Your task to perform on an android device: open a new tab in the chrome app Image 0: 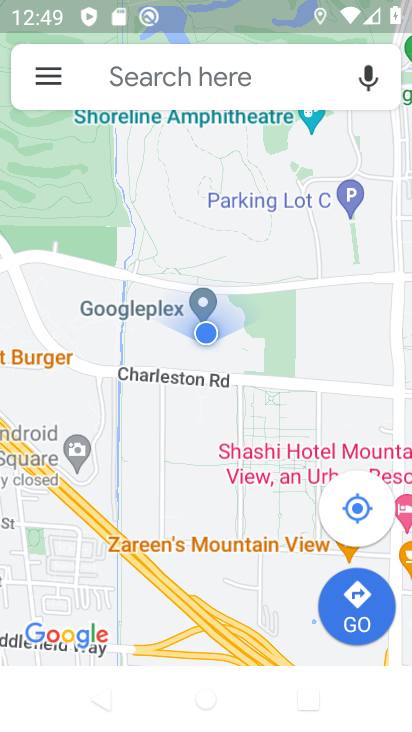
Step 0: press home button
Your task to perform on an android device: open a new tab in the chrome app Image 1: 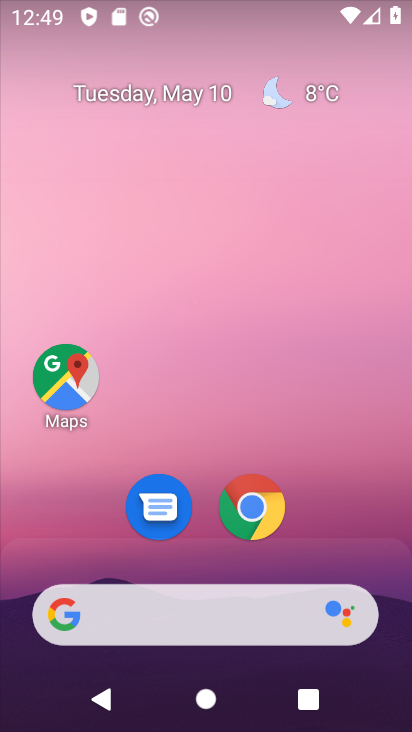
Step 1: click (254, 505)
Your task to perform on an android device: open a new tab in the chrome app Image 2: 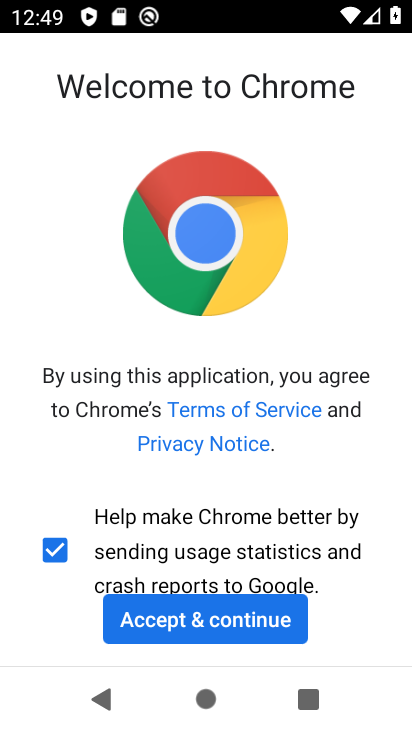
Step 2: click (180, 628)
Your task to perform on an android device: open a new tab in the chrome app Image 3: 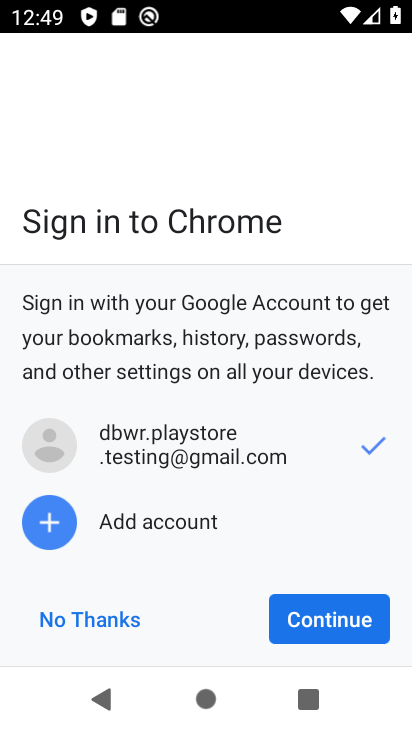
Step 3: click (324, 614)
Your task to perform on an android device: open a new tab in the chrome app Image 4: 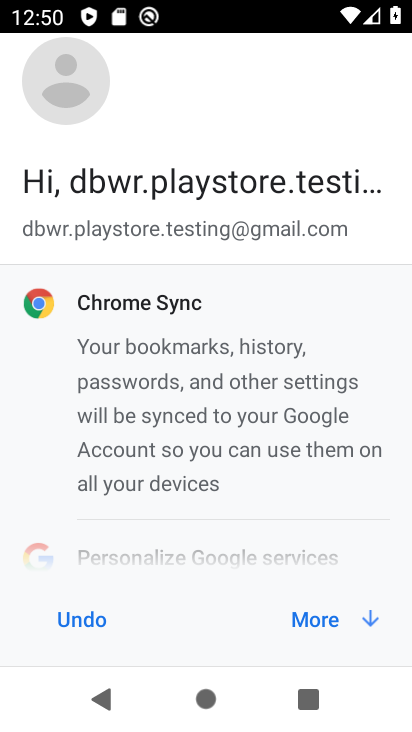
Step 4: click (324, 614)
Your task to perform on an android device: open a new tab in the chrome app Image 5: 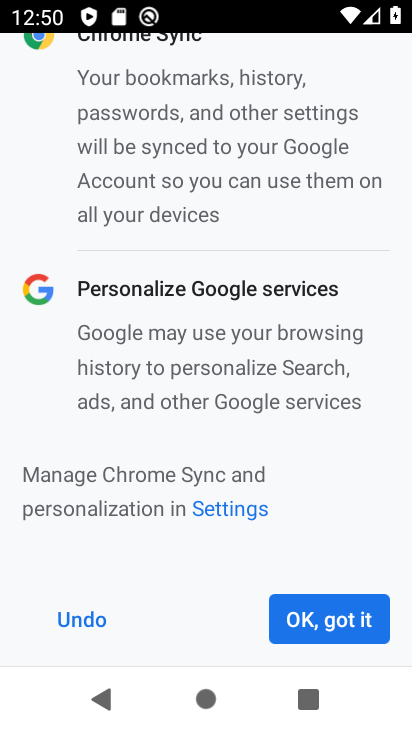
Step 5: click (324, 620)
Your task to perform on an android device: open a new tab in the chrome app Image 6: 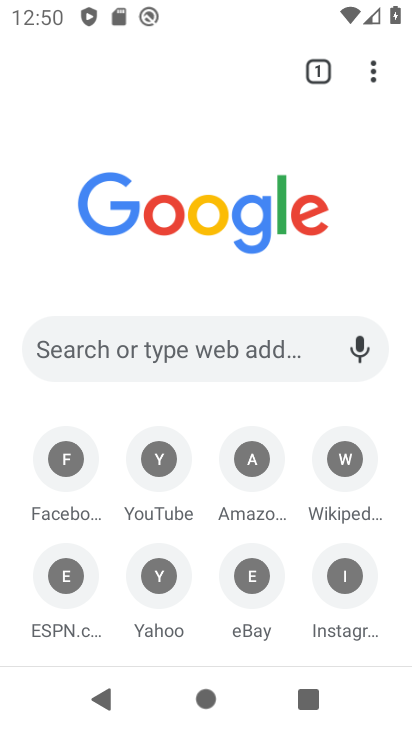
Step 6: click (374, 78)
Your task to perform on an android device: open a new tab in the chrome app Image 7: 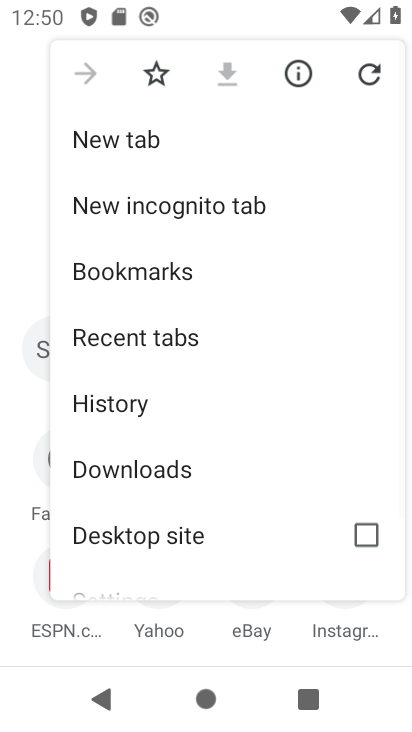
Step 7: click (104, 139)
Your task to perform on an android device: open a new tab in the chrome app Image 8: 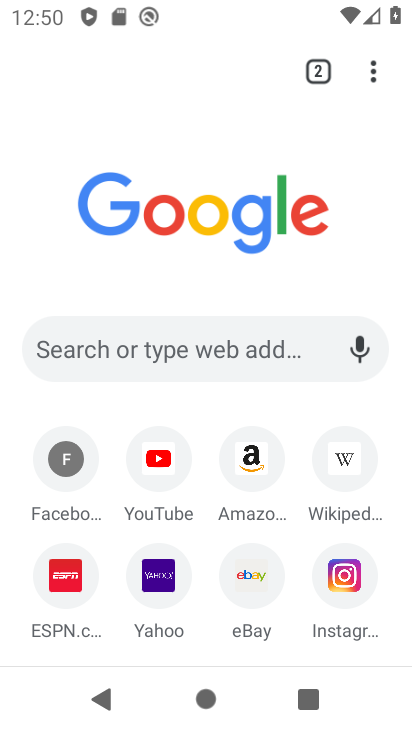
Step 8: task complete